Your task to perform on an android device: Open Google Maps Image 0: 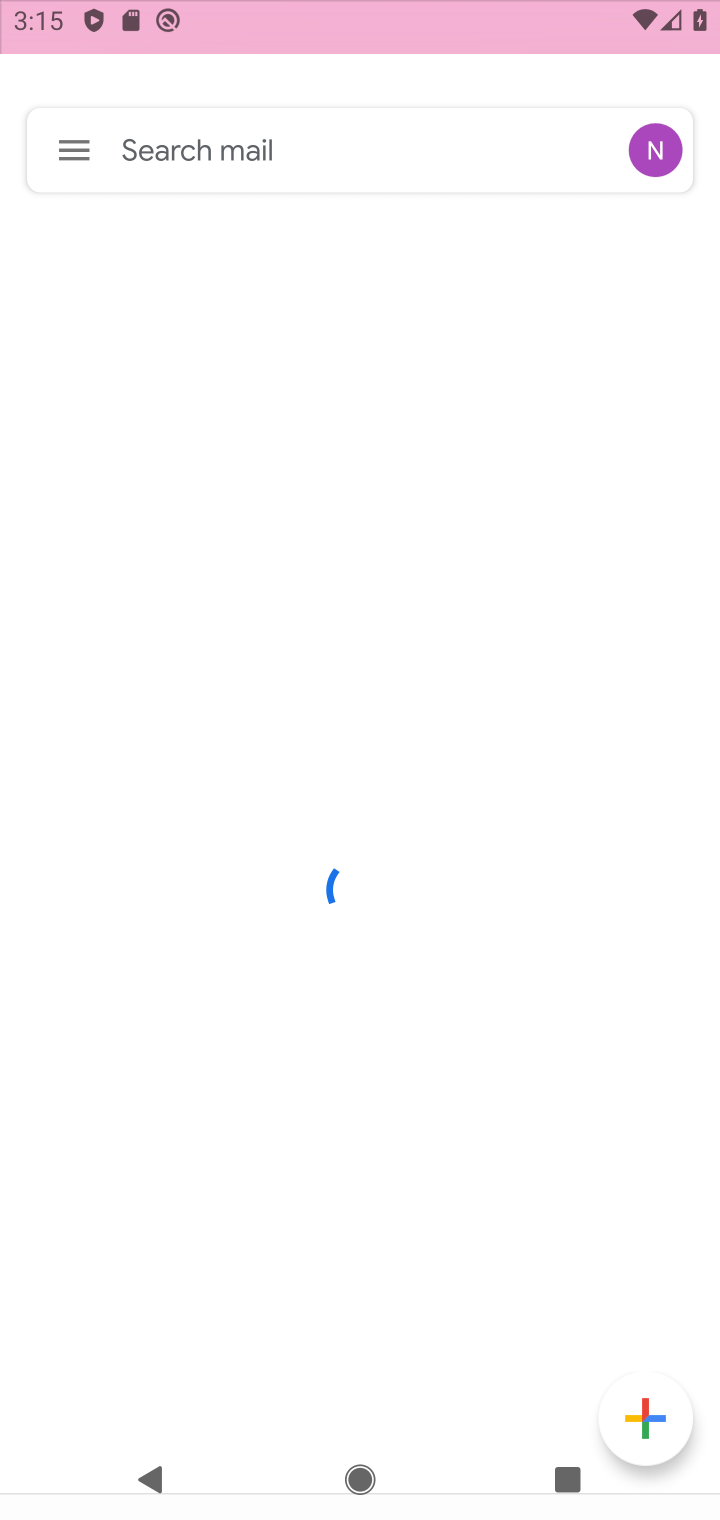
Step 0: press home button
Your task to perform on an android device: Open Google Maps Image 1: 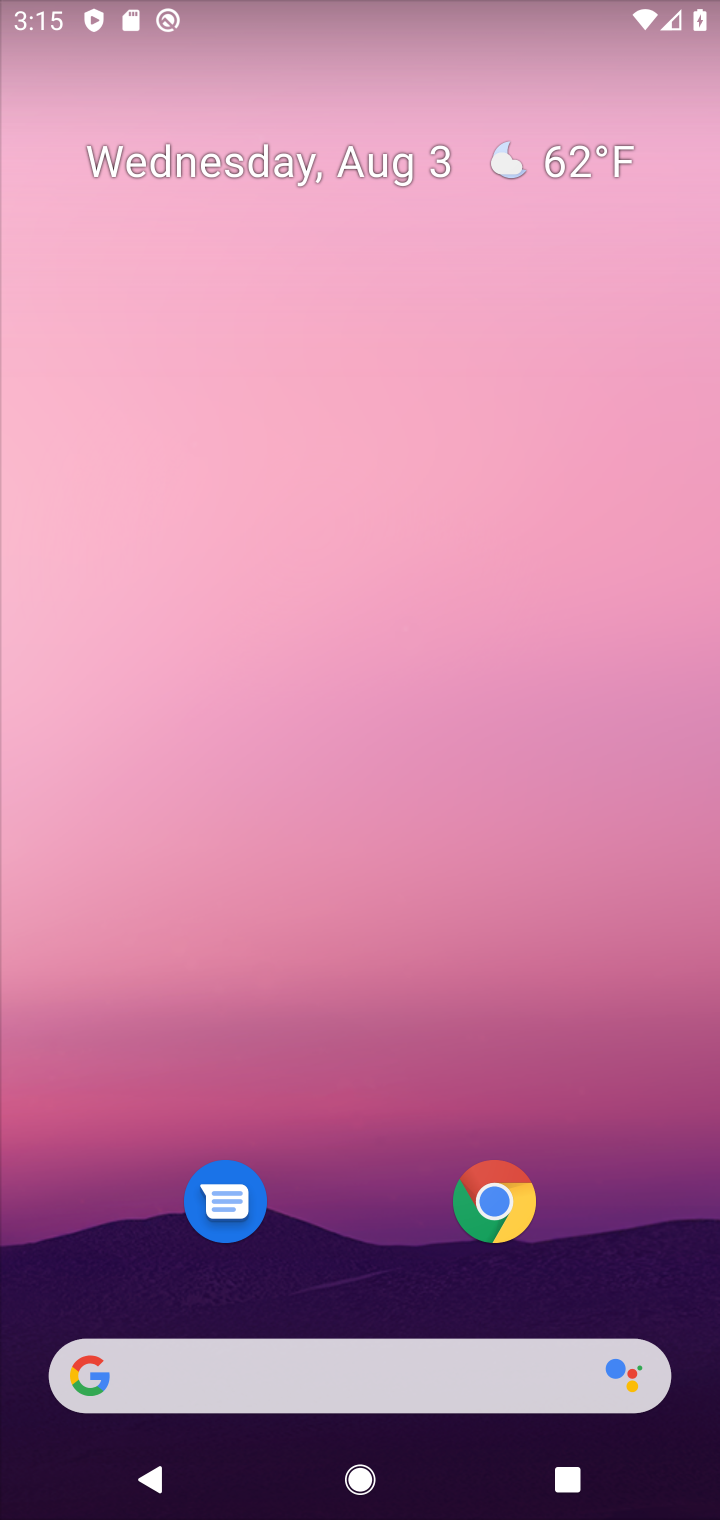
Step 1: drag from (349, 1200) to (349, 101)
Your task to perform on an android device: Open Google Maps Image 2: 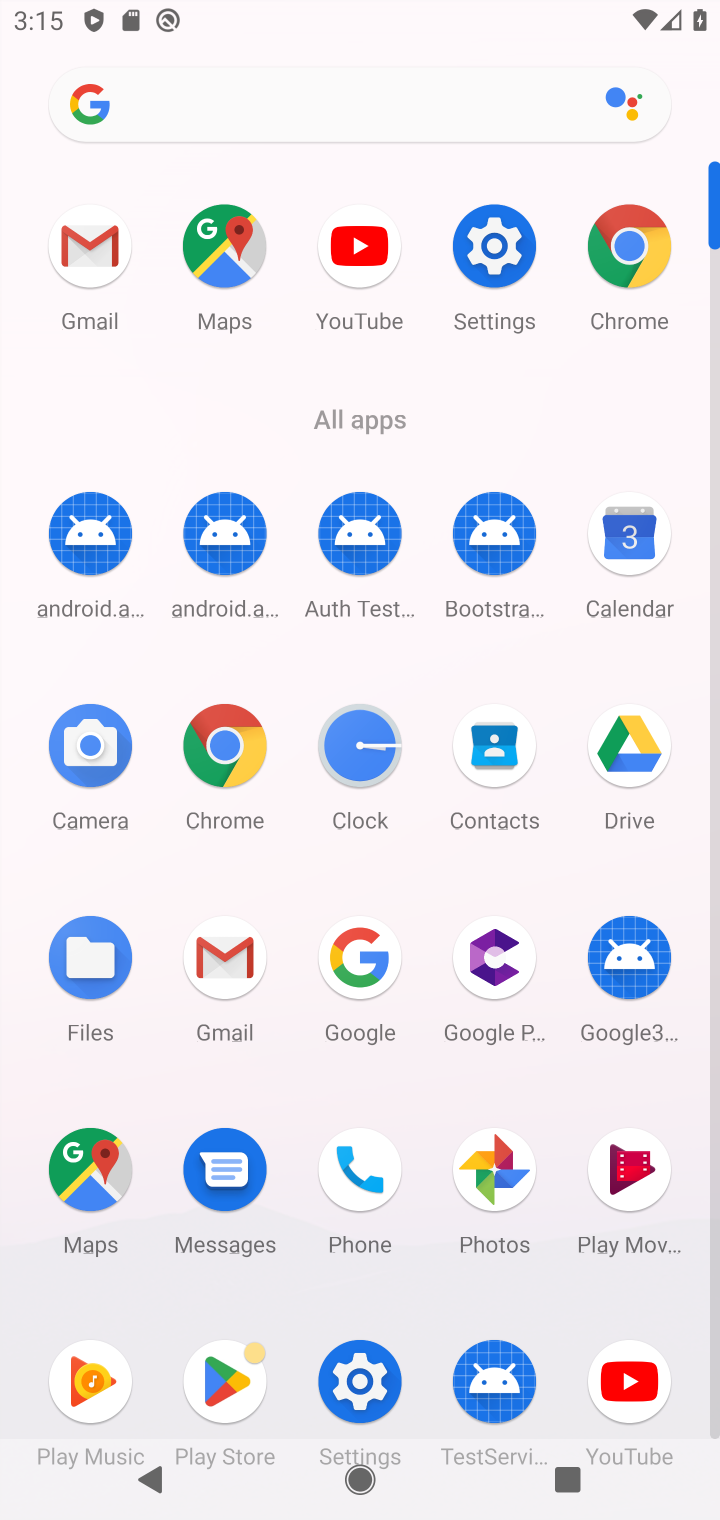
Step 2: click (100, 1168)
Your task to perform on an android device: Open Google Maps Image 3: 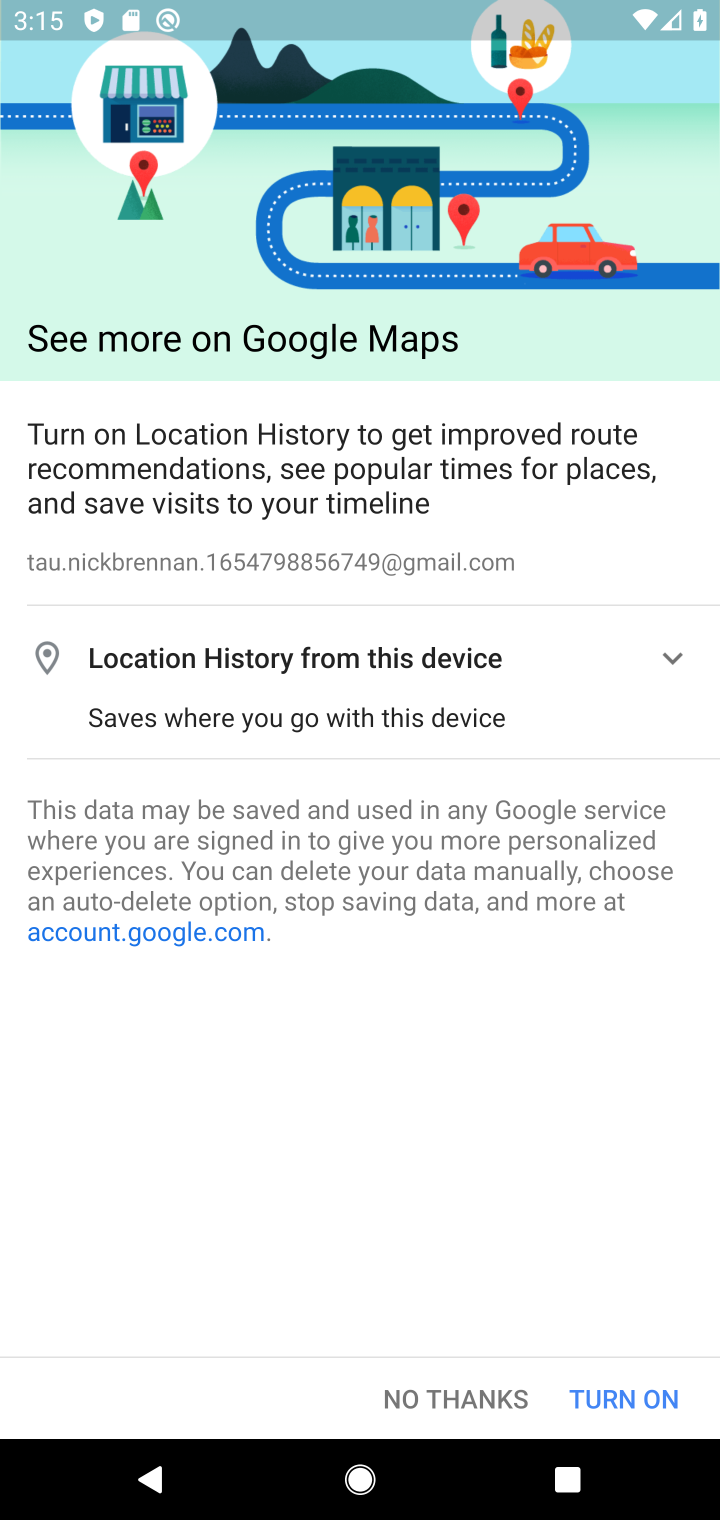
Step 3: click (447, 1390)
Your task to perform on an android device: Open Google Maps Image 4: 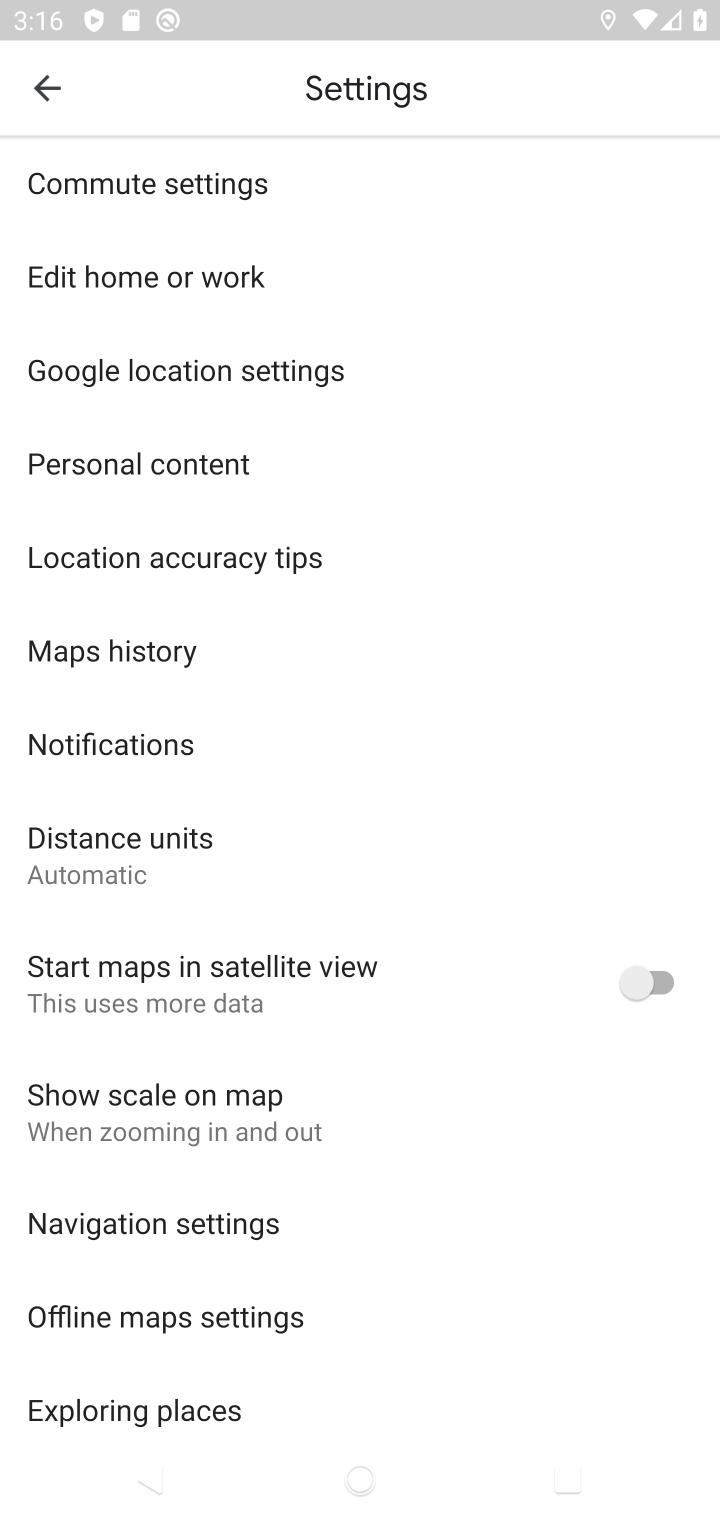
Step 4: click (39, 101)
Your task to perform on an android device: Open Google Maps Image 5: 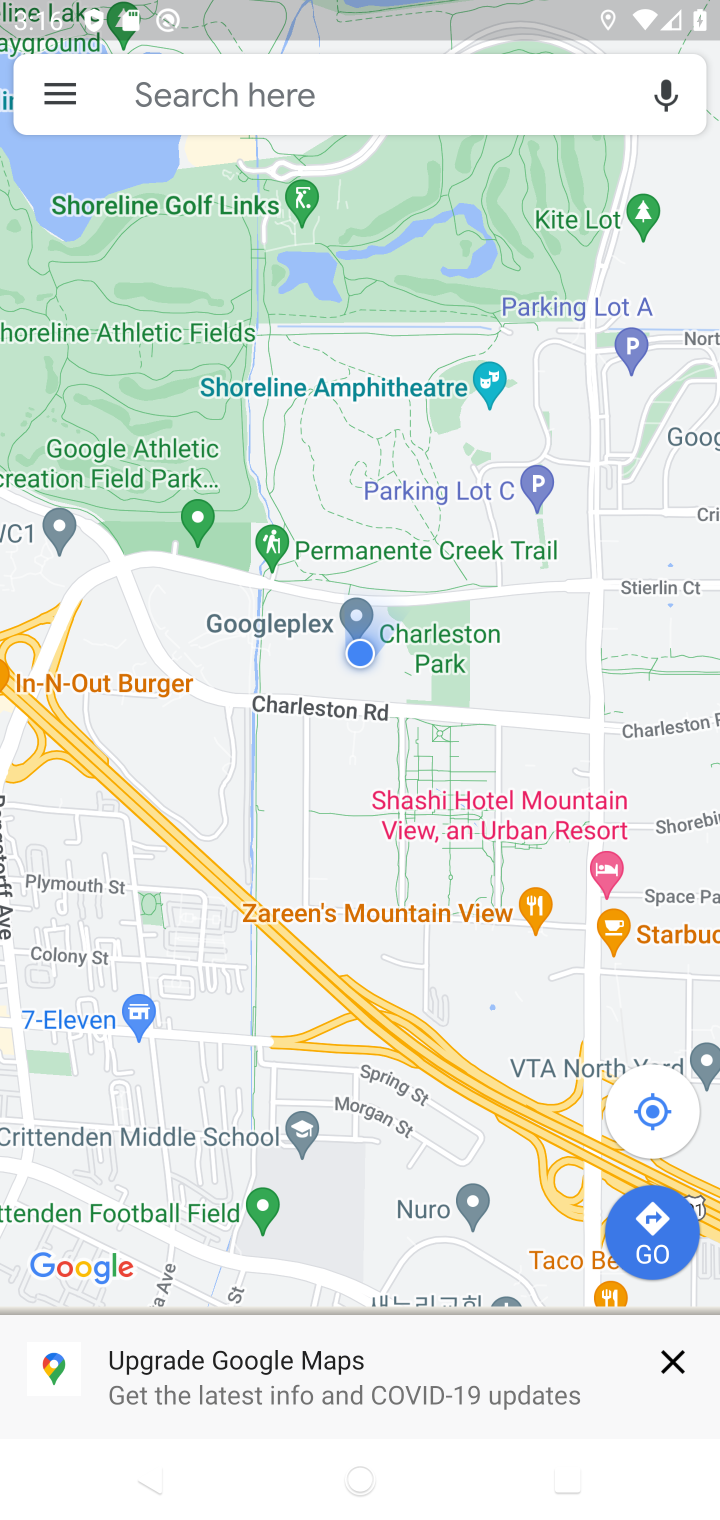
Step 5: task complete